Your task to perform on an android device: Open battery settings Image 0: 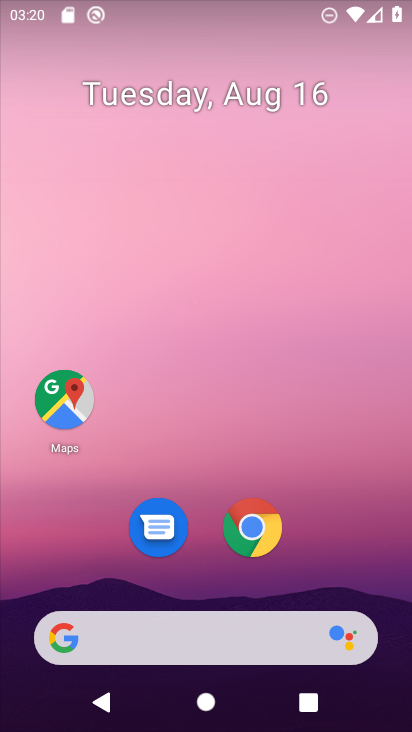
Step 0: press home button
Your task to perform on an android device: Open battery settings Image 1: 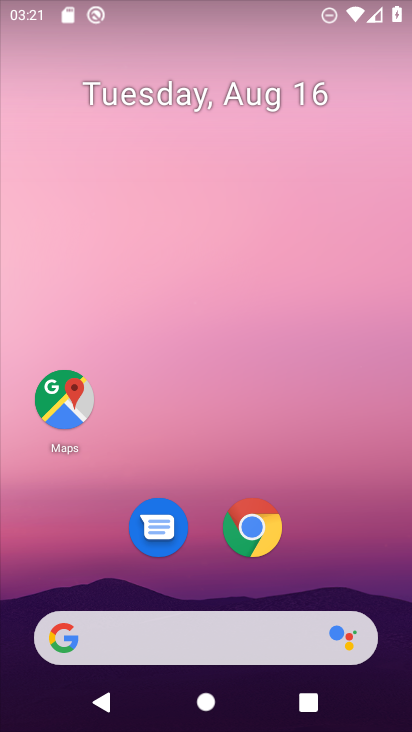
Step 1: click (213, 95)
Your task to perform on an android device: Open battery settings Image 2: 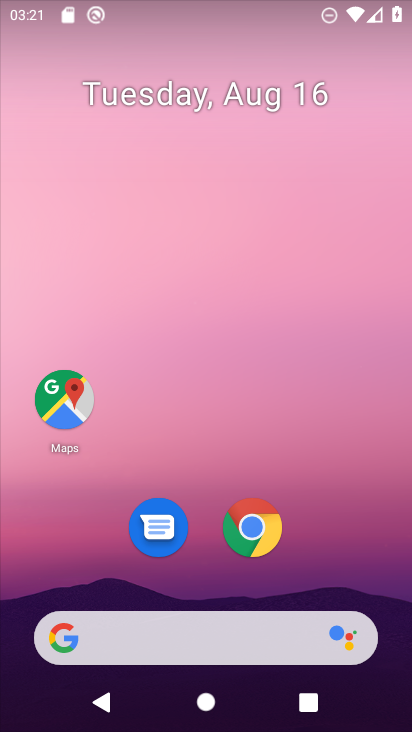
Step 2: drag from (199, 589) to (209, 40)
Your task to perform on an android device: Open battery settings Image 3: 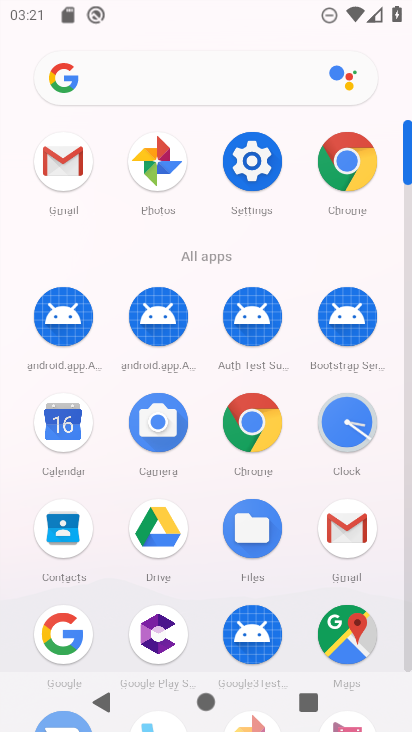
Step 3: click (246, 152)
Your task to perform on an android device: Open battery settings Image 4: 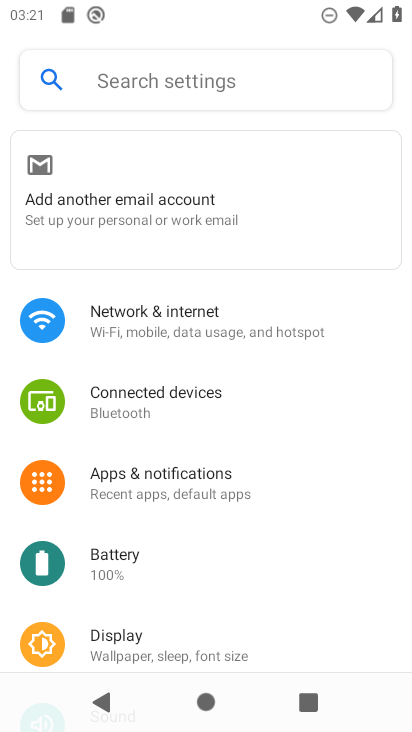
Step 4: click (153, 570)
Your task to perform on an android device: Open battery settings Image 5: 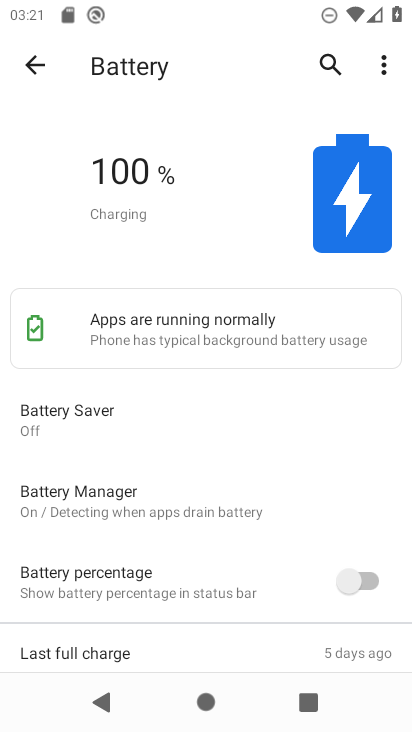
Step 5: task complete